Your task to perform on an android device: turn off notifications in google photos Image 0: 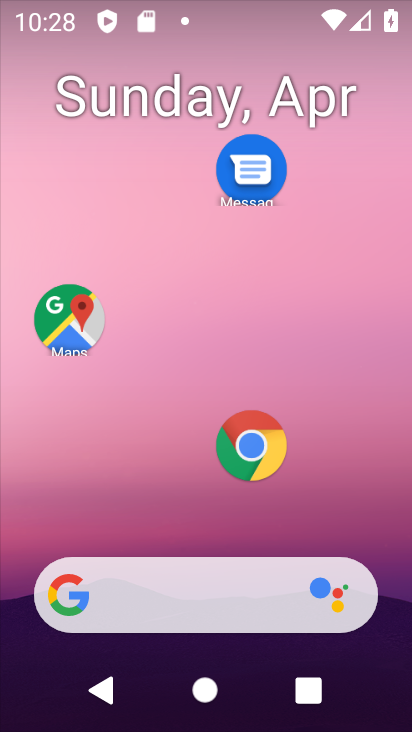
Step 0: drag from (158, 585) to (327, 63)
Your task to perform on an android device: turn off notifications in google photos Image 1: 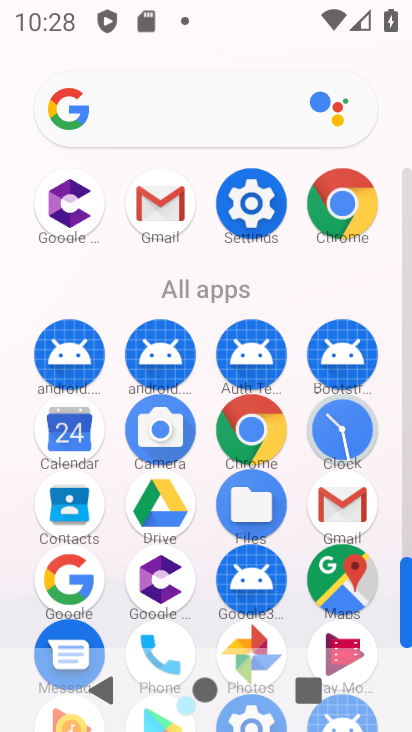
Step 1: drag from (252, 402) to (321, 117)
Your task to perform on an android device: turn off notifications in google photos Image 2: 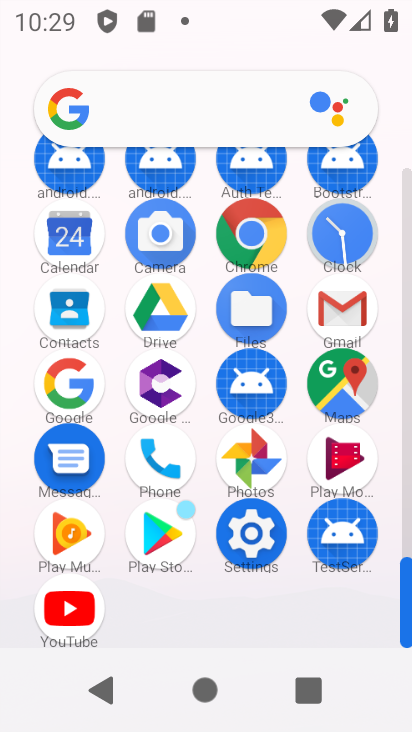
Step 2: click (259, 473)
Your task to perform on an android device: turn off notifications in google photos Image 3: 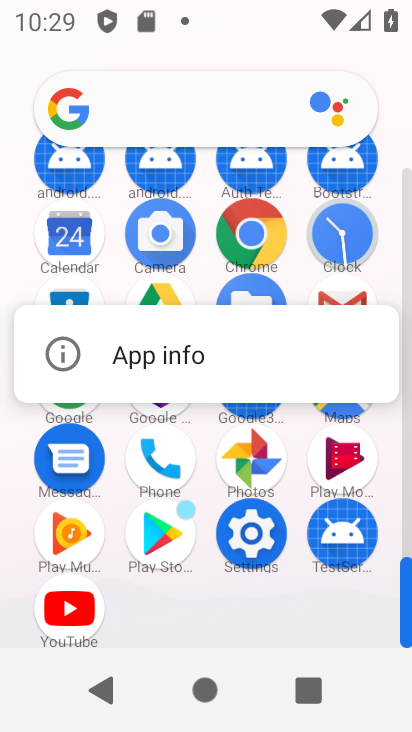
Step 3: click (255, 460)
Your task to perform on an android device: turn off notifications in google photos Image 4: 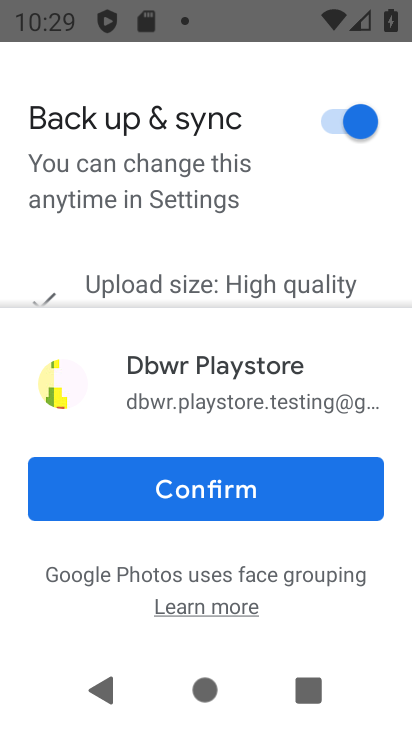
Step 4: click (180, 496)
Your task to perform on an android device: turn off notifications in google photos Image 5: 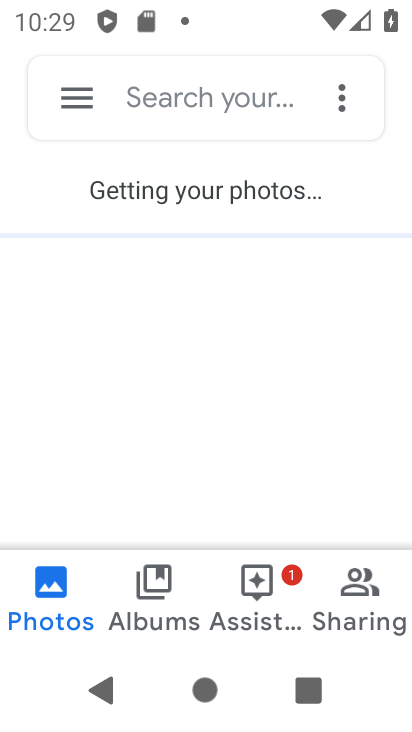
Step 5: click (69, 106)
Your task to perform on an android device: turn off notifications in google photos Image 6: 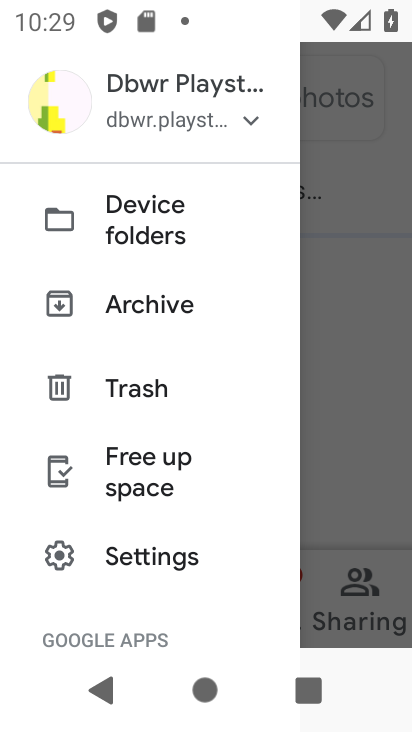
Step 6: click (180, 557)
Your task to perform on an android device: turn off notifications in google photos Image 7: 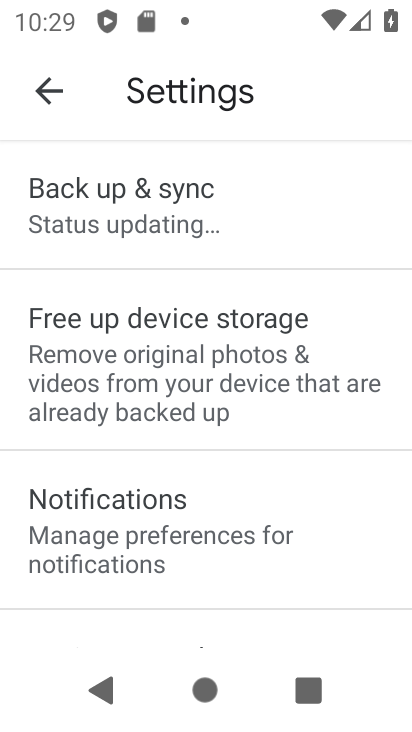
Step 7: click (162, 506)
Your task to perform on an android device: turn off notifications in google photos Image 8: 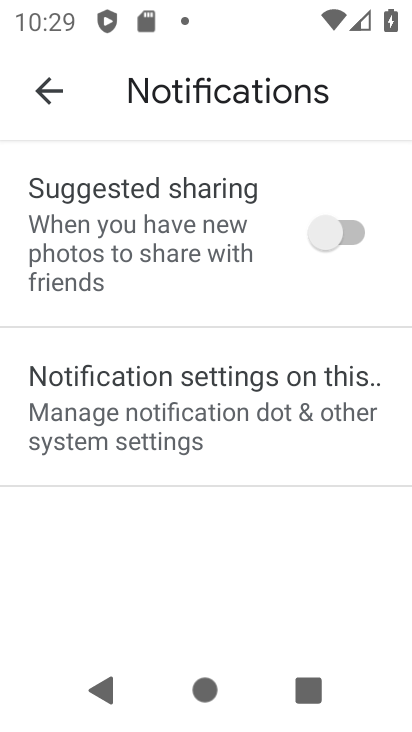
Step 8: click (214, 403)
Your task to perform on an android device: turn off notifications in google photos Image 9: 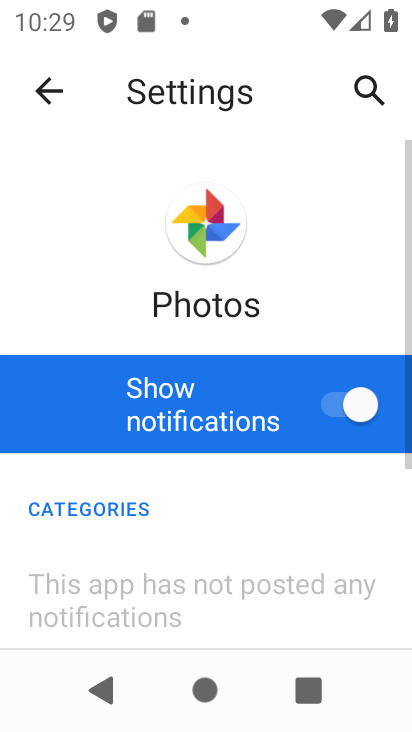
Step 9: click (337, 416)
Your task to perform on an android device: turn off notifications in google photos Image 10: 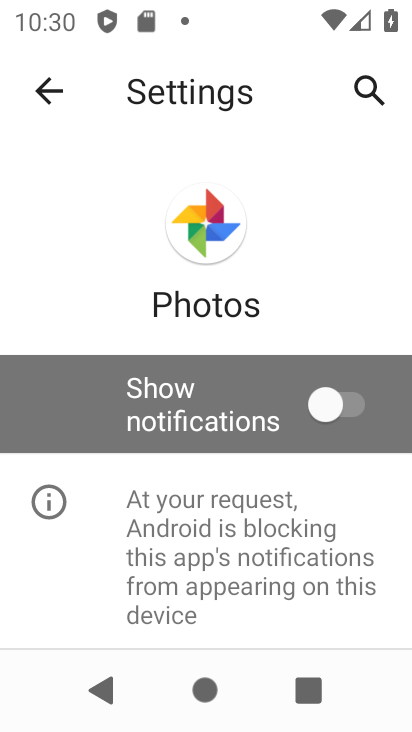
Step 10: task complete